Your task to perform on an android device: clear history in the chrome app Image 0: 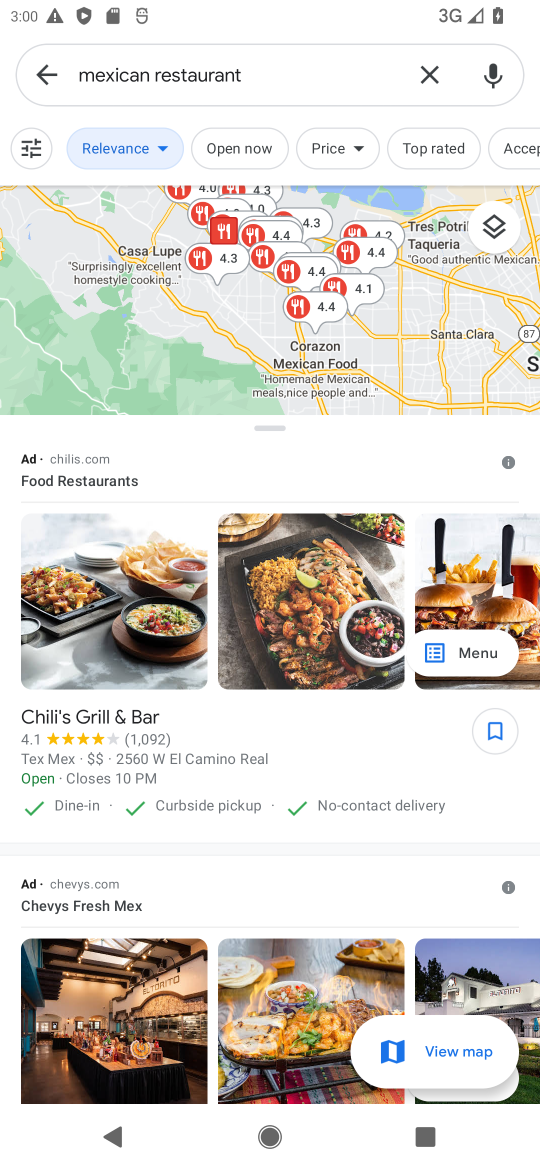
Step 0: press home button
Your task to perform on an android device: clear history in the chrome app Image 1: 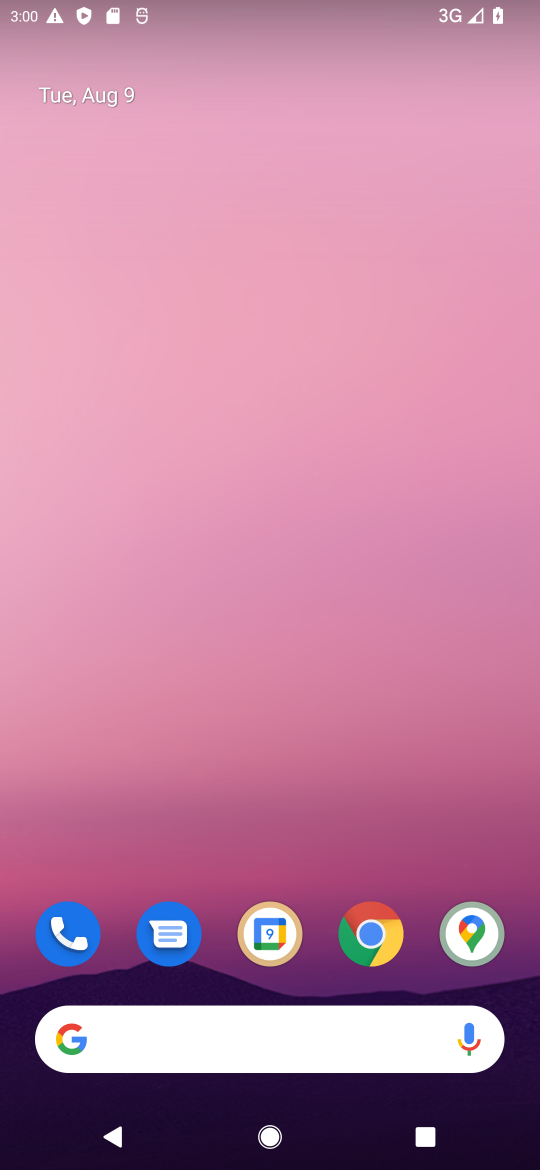
Step 1: click (382, 934)
Your task to perform on an android device: clear history in the chrome app Image 2: 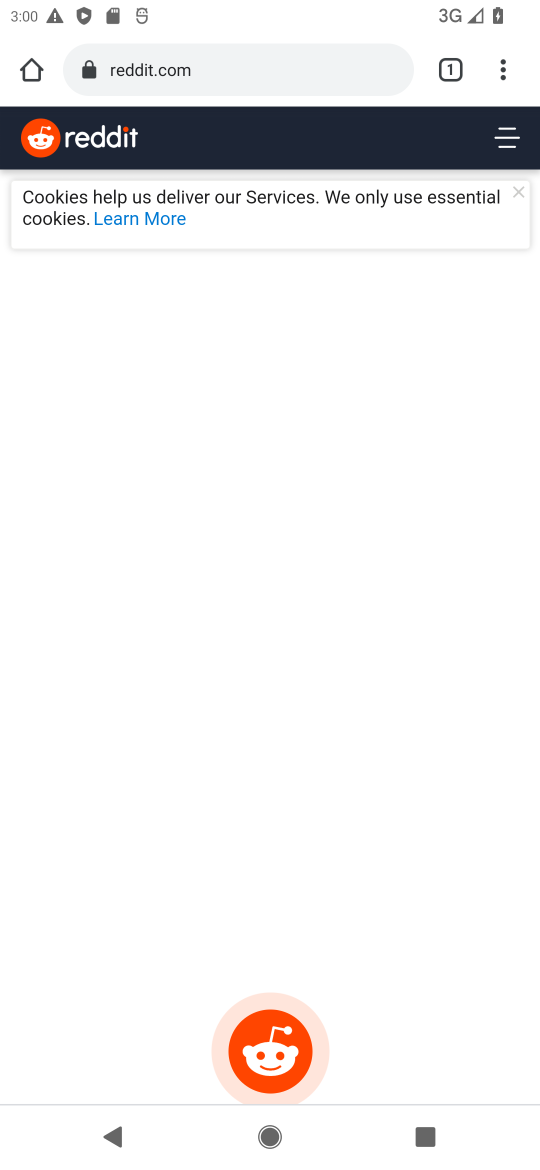
Step 2: click (371, 73)
Your task to perform on an android device: clear history in the chrome app Image 3: 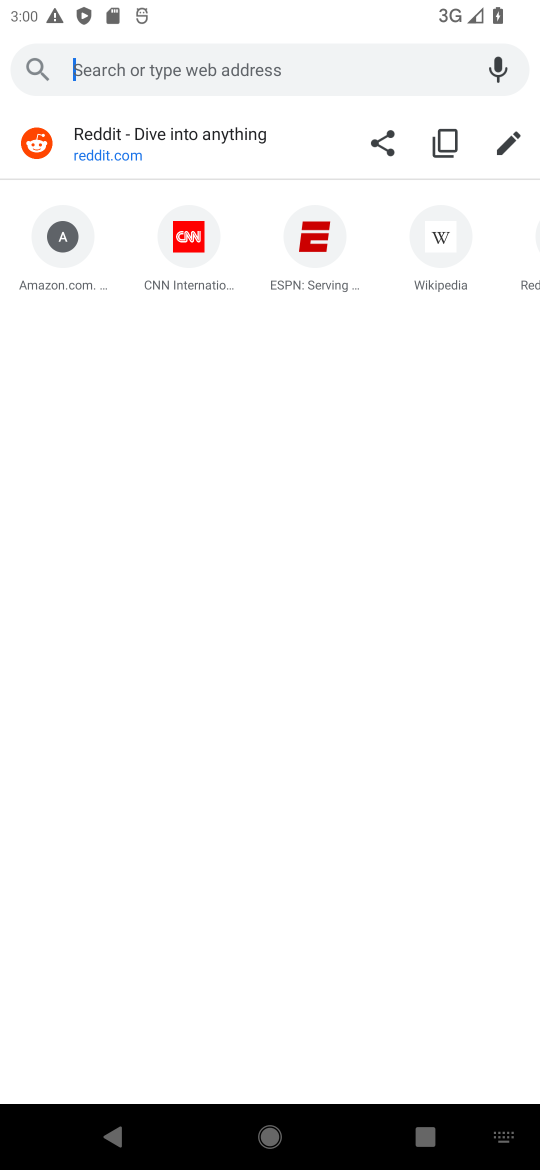
Step 3: type "chorme"
Your task to perform on an android device: clear history in the chrome app Image 4: 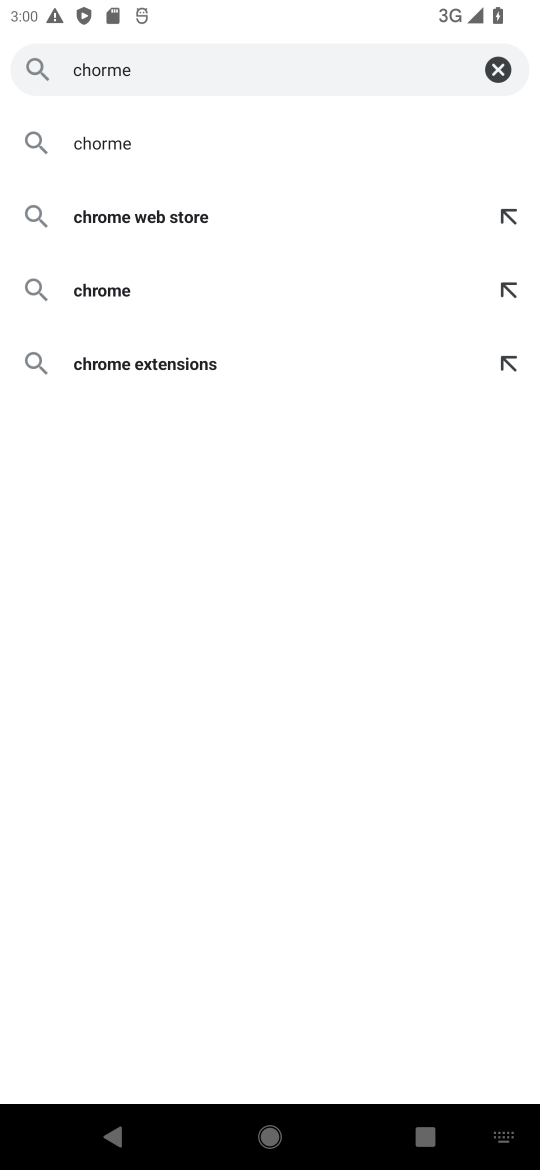
Step 4: task complete